Your task to perform on an android device: move an email to a new category in the gmail app Image 0: 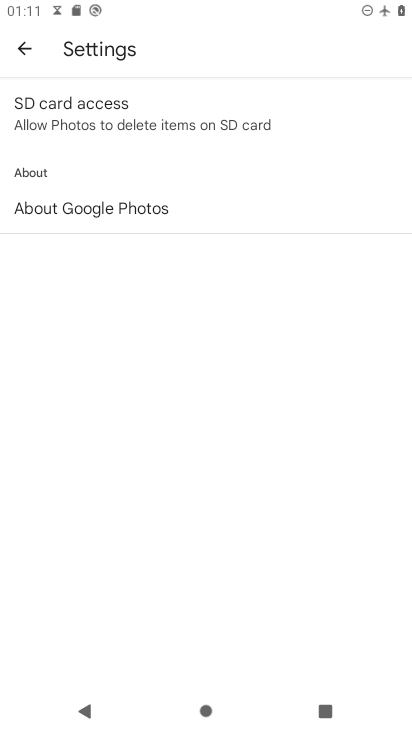
Step 0: press home button
Your task to perform on an android device: move an email to a new category in the gmail app Image 1: 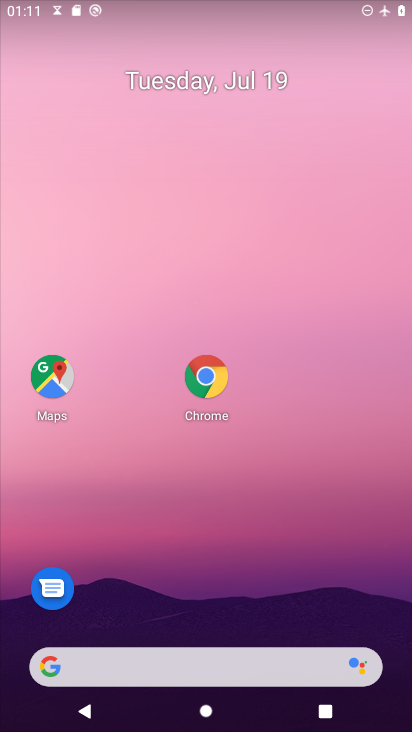
Step 1: drag from (330, 578) to (352, 60)
Your task to perform on an android device: move an email to a new category in the gmail app Image 2: 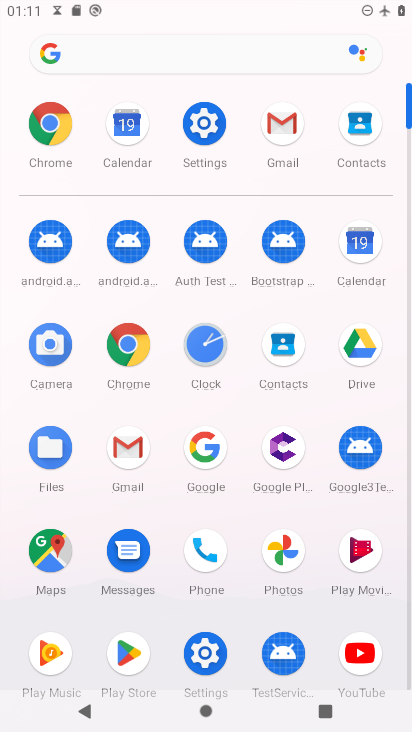
Step 2: click (288, 122)
Your task to perform on an android device: move an email to a new category in the gmail app Image 3: 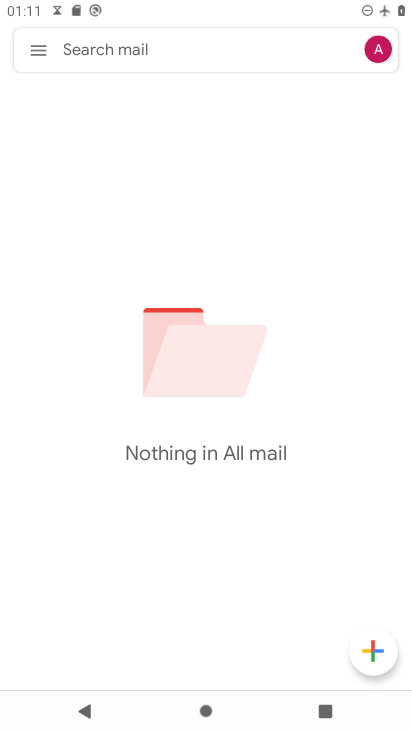
Step 3: task complete